Your task to perform on an android device: turn smart compose on in the gmail app Image 0: 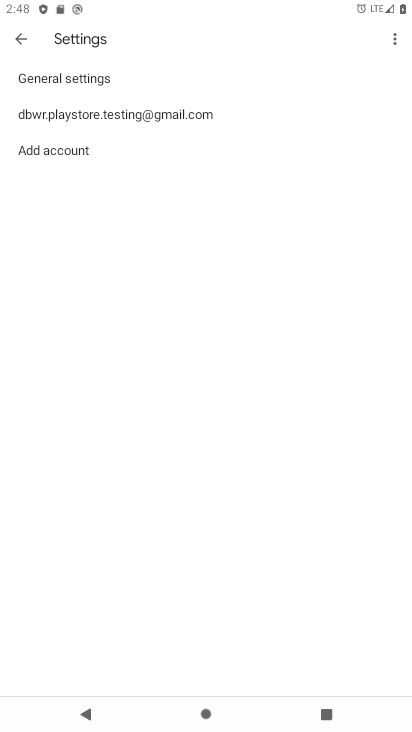
Step 0: click (181, 123)
Your task to perform on an android device: turn smart compose on in the gmail app Image 1: 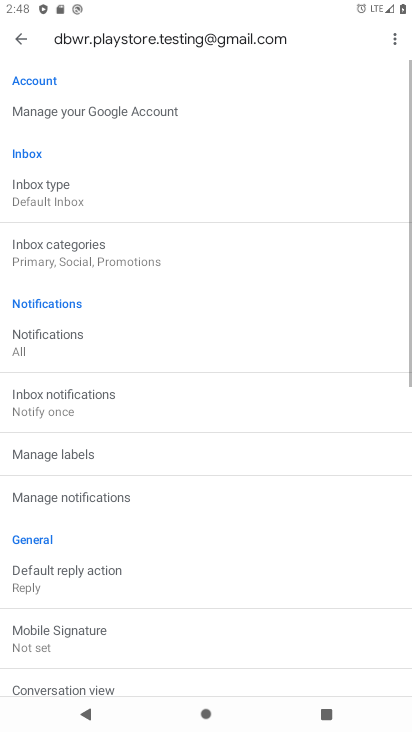
Step 1: task complete